Your task to perform on an android device: turn on javascript in the chrome app Image 0: 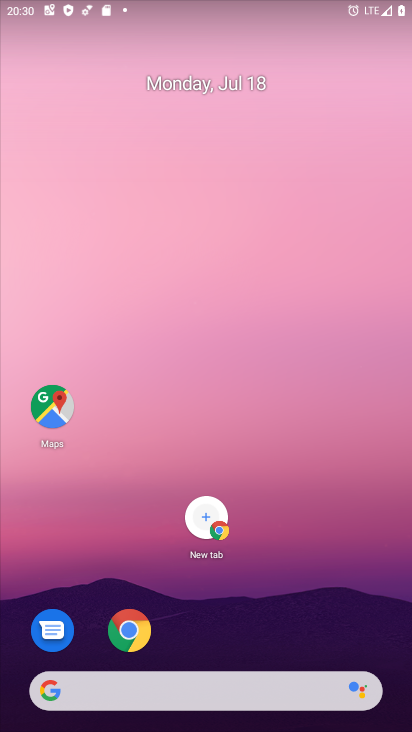
Step 0: drag from (226, 678) to (271, 398)
Your task to perform on an android device: turn on javascript in the chrome app Image 1: 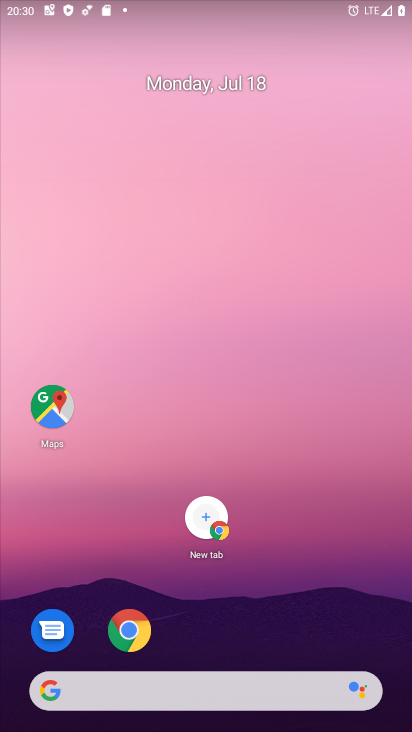
Step 1: drag from (208, 666) to (307, 214)
Your task to perform on an android device: turn on javascript in the chrome app Image 2: 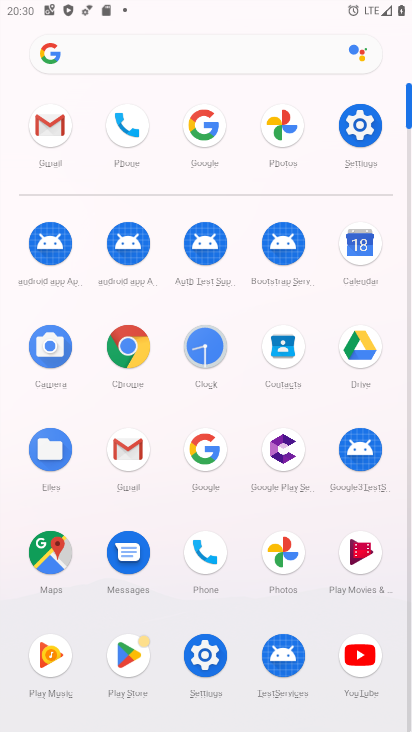
Step 2: click (125, 357)
Your task to perform on an android device: turn on javascript in the chrome app Image 3: 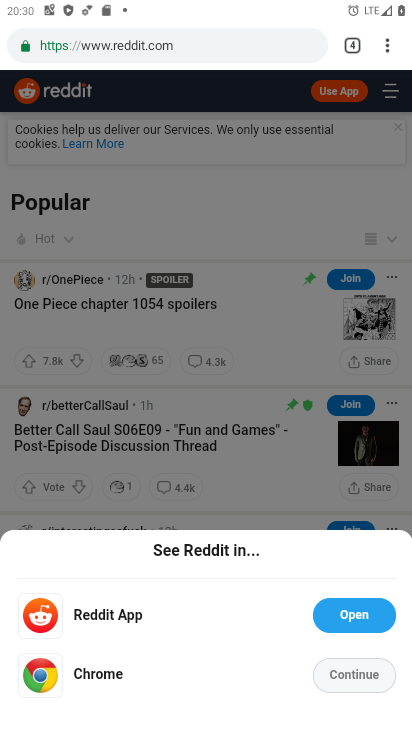
Step 3: click (385, 41)
Your task to perform on an android device: turn on javascript in the chrome app Image 4: 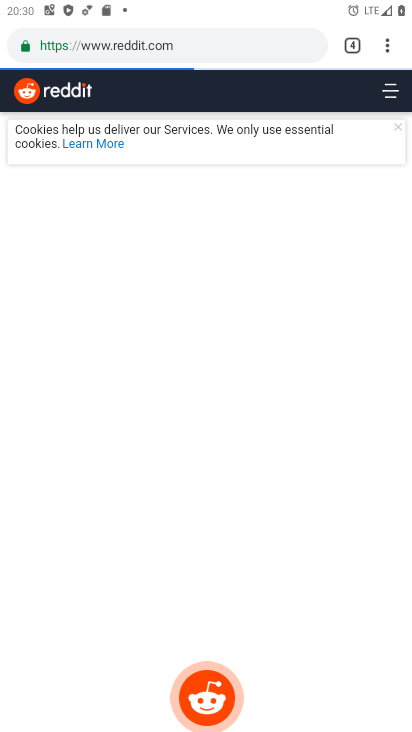
Step 4: click (387, 48)
Your task to perform on an android device: turn on javascript in the chrome app Image 5: 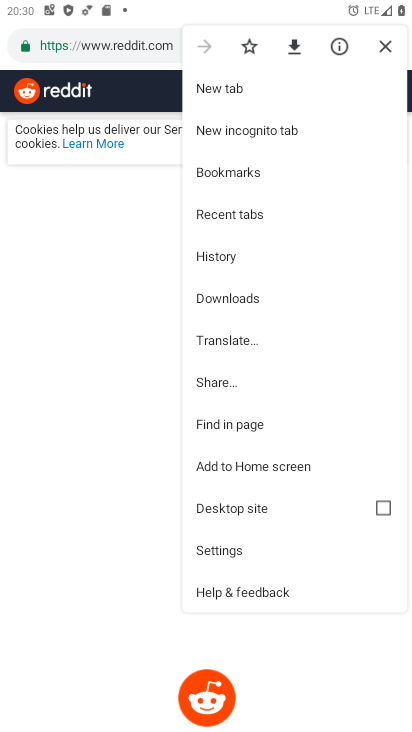
Step 5: click (217, 547)
Your task to perform on an android device: turn on javascript in the chrome app Image 6: 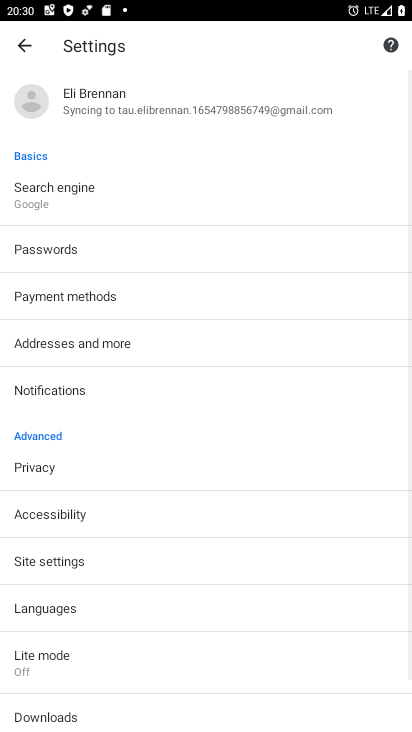
Step 6: click (139, 575)
Your task to perform on an android device: turn on javascript in the chrome app Image 7: 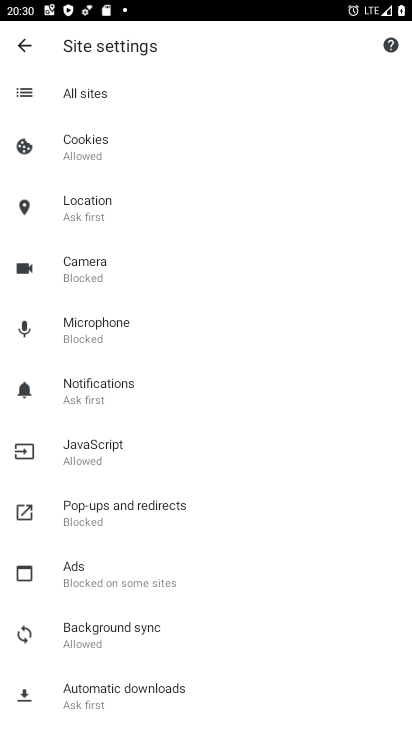
Step 7: click (170, 455)
Your task to perform on an android device: turn on javascript in the chrome app Image 8: 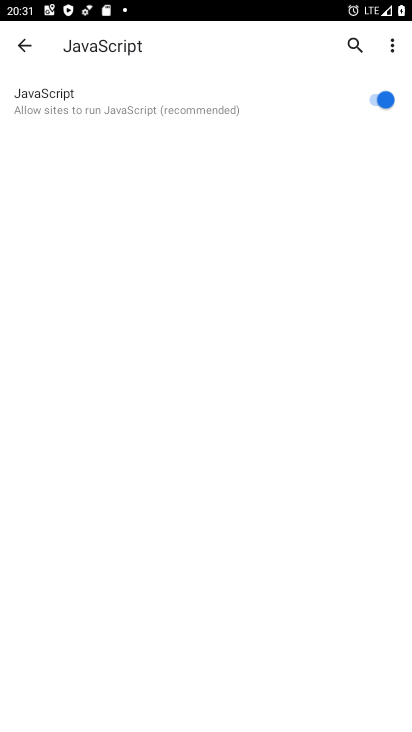
Step 8: task complete